Your task to perform on an android device: Open calendar and show me the first week of next month Image 0: 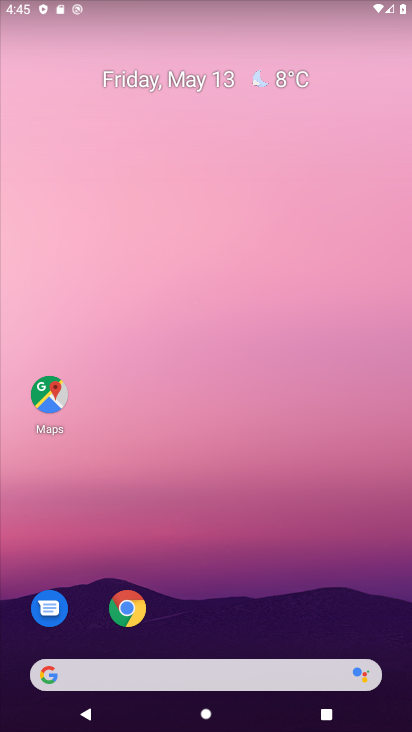
Step 0: drag from (294, 618) to (241, 179)
Your task to perform on an android device: Open calendar and show me the first week of next month Image 1: 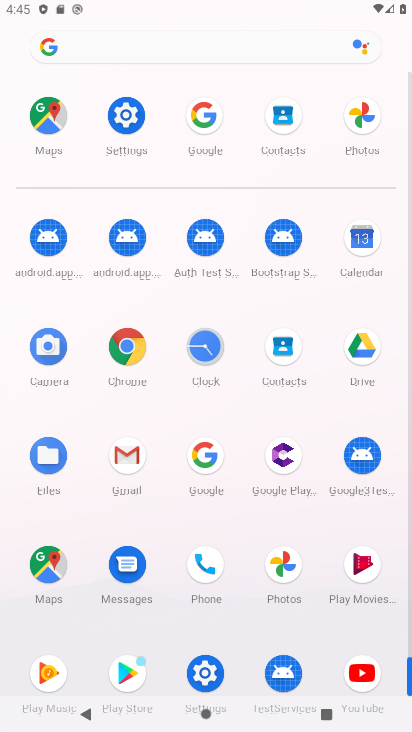
Step 1: click (362, 238)
Your task to perform on an android device: Open calendar and show me the first week of next month Image 2: 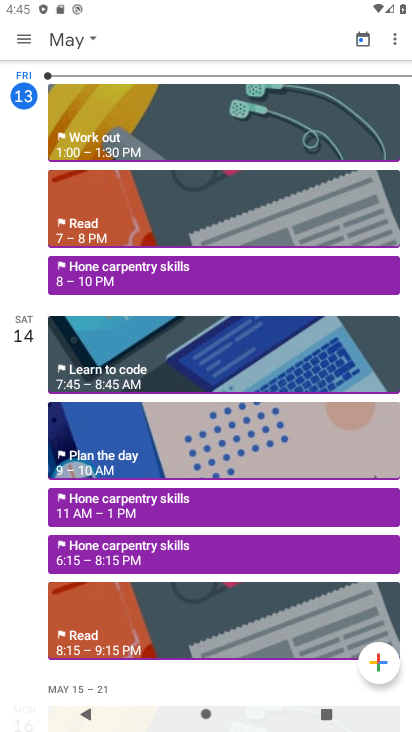
Step 2: click (92, 39)
Your task to perform on an android device: Open calendar and show me the first week of next month Image 3: 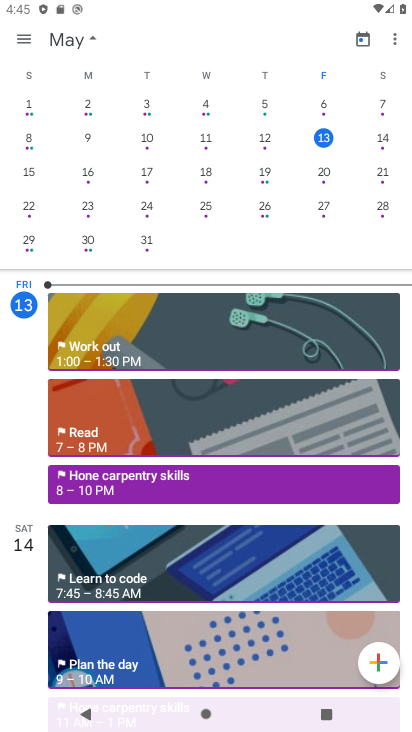
Step 3: drag from (367, 182) to (0, 169)
Your task to perform on an android device: Open calendar and show me the first week of next month Image 4: 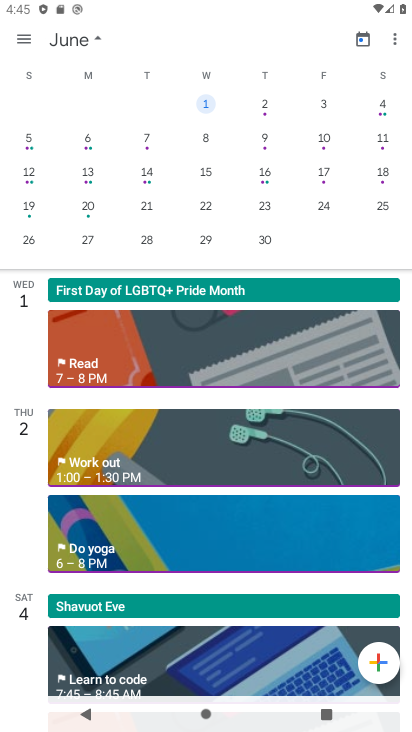
Step 4: click (93, 138)
Your task to perform on an android device: Open calendar and show me the first week of next month Image 5: 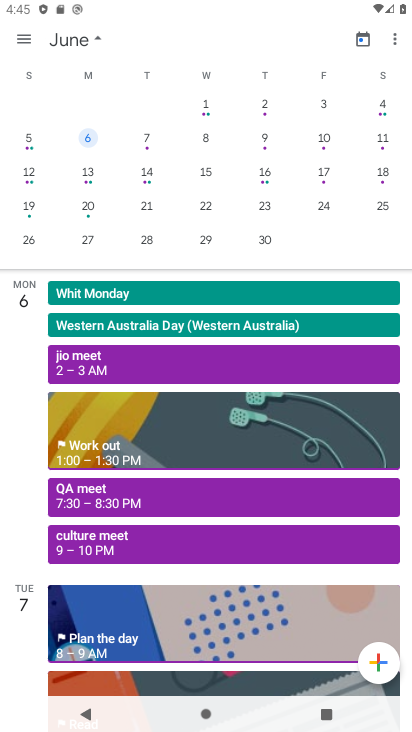
Step 5: click (20, 38)
Your task to perform on an android device: Open calendar and show me the first week of next month Image 6: 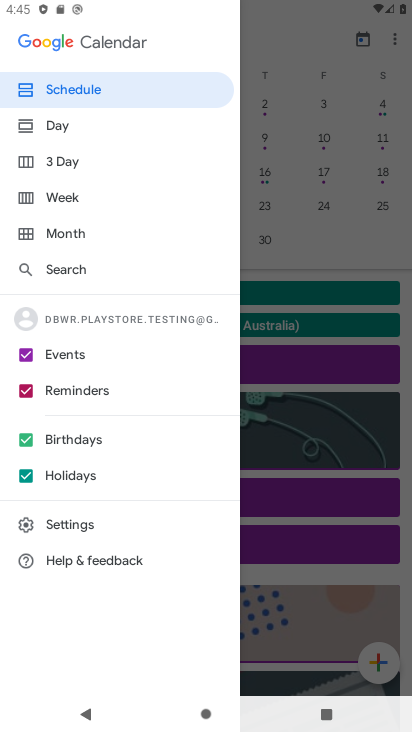
Step 6: click (83, 197)
Your task to perform on an android device: Open calendar and show me the first week of next month Image 7: 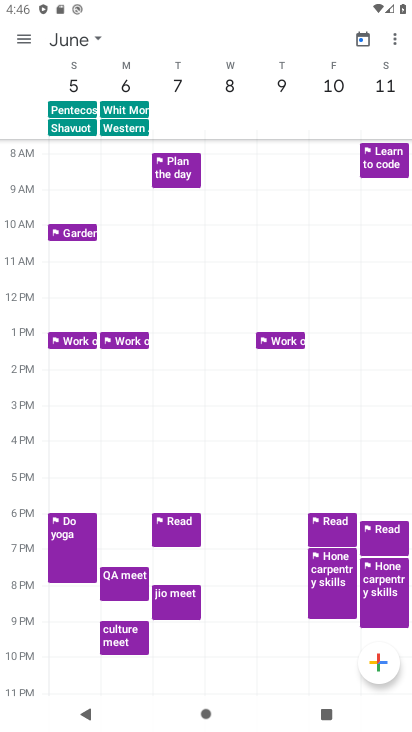
Step 7: task complete